Your task to perform on an android device: turn off airplane mode Image 0: 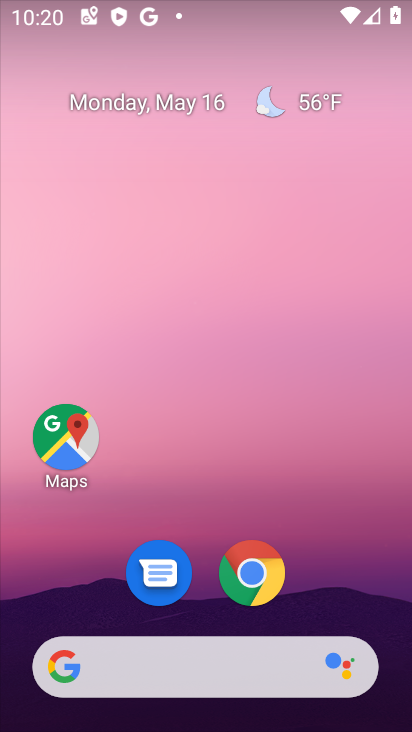
Step 0: drag from (350, 3) to (226, 678)
Your task to perform on an android device: turn off airplane mode Image 1: 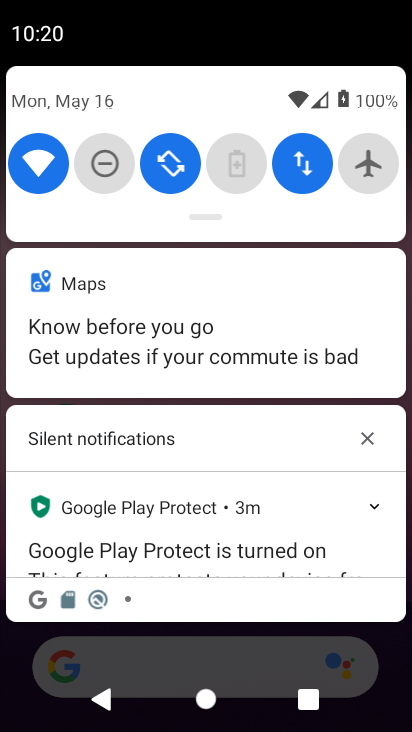
Step 1: task complete